Your task to perform on an android device: What's the weather? Image 0: 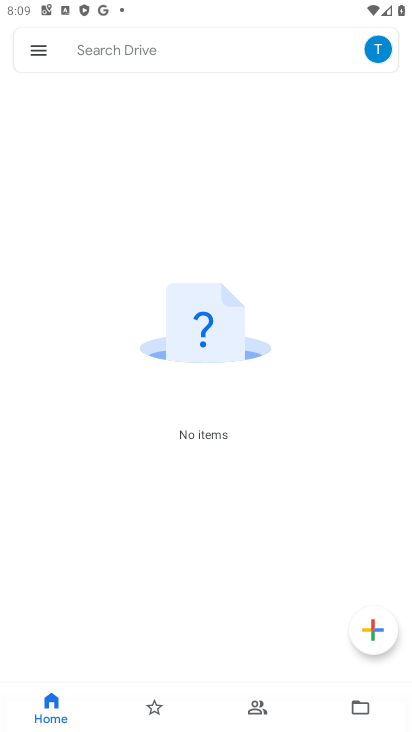
Step 0: press home button
Your task to perform on an android device: What's the weather? Image 1: 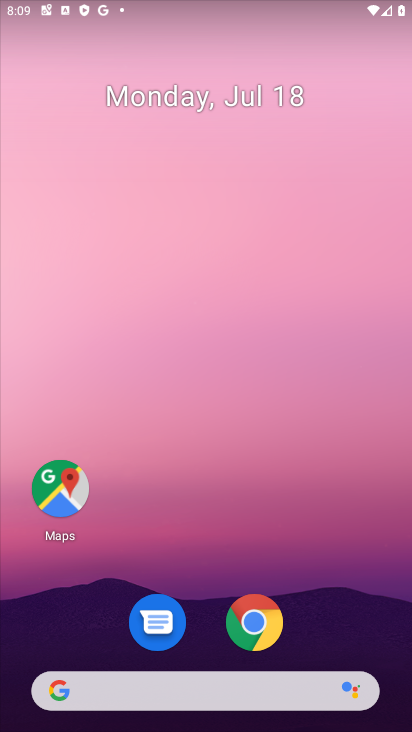
Step 1: drag from (262, 660) to (264, 203)
Your task to perform on an android device: What's the weather? Image 2: 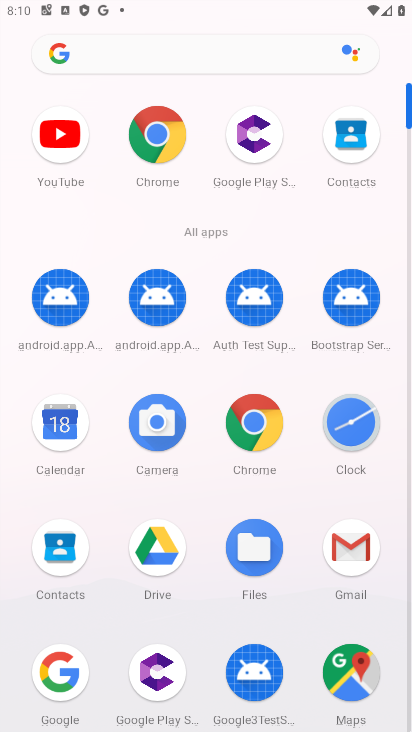
Step 2: click (61, 672)
Your task to perform on an android device: What's the weather? Image 3: 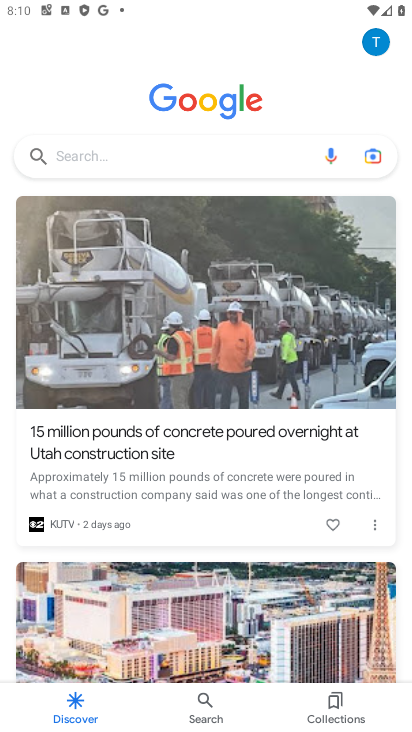
Step 3: click (222, 155)
Your task to perform on an android device: What's the weather? Image 4: 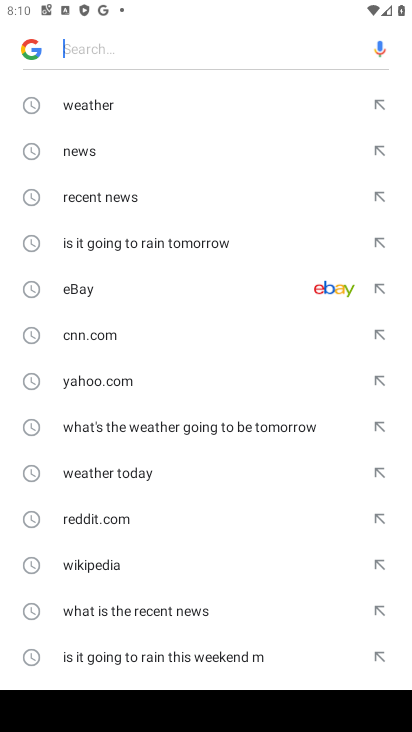
Step 4: click (120, 108)
Your task to perform on an android device: What's the weather? Image 5: 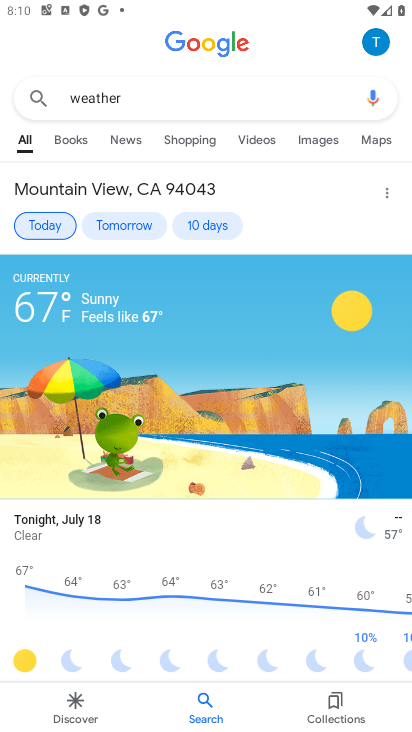
Step 5: task complete